Your task to perform on an android device: turn on priority inbox in the gmail app Image 0: 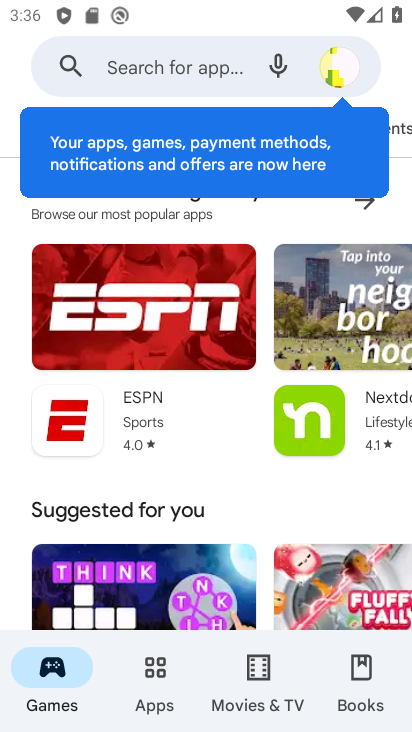
Step 0: press home button
Your task to perform on an android device: turn on priority inbox in the gmail app Image 1: 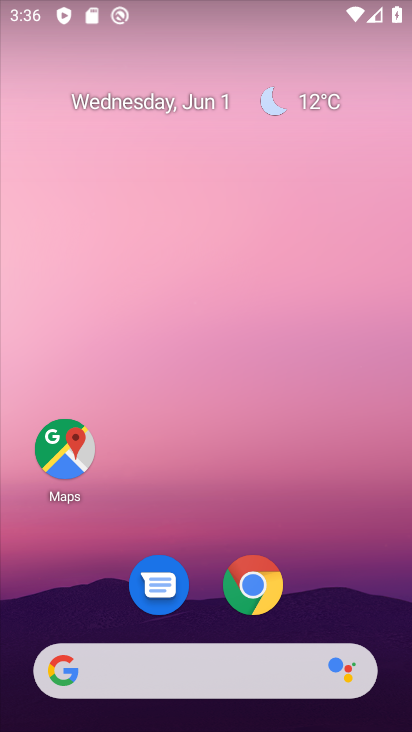
Step 1: drag from (202, 528) to (211, 3)
Your task to perform on an android device: turn on priority inbox in the gmail app Image 2: 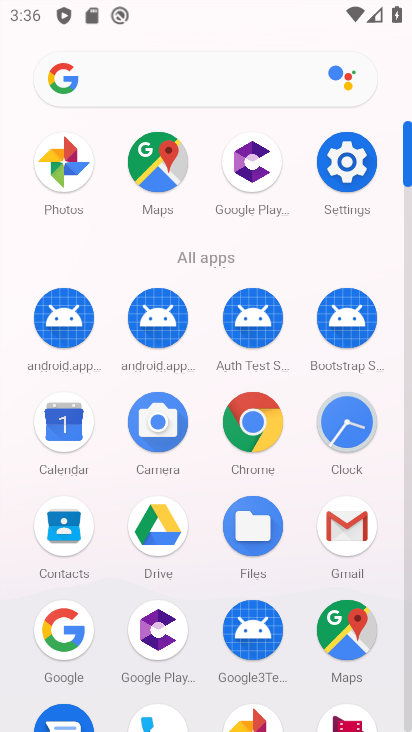
Step 2: click (342, 527)
Your task to perform on an android device: turn on priority inbox in the gmail app Image 3: 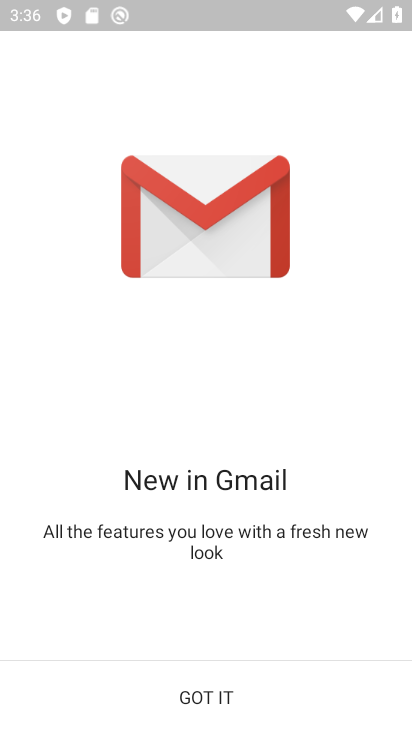
Step 3: click (269, 691)
Your task to perform on an android device: turn on priority inbox in the gmail app Image 4: 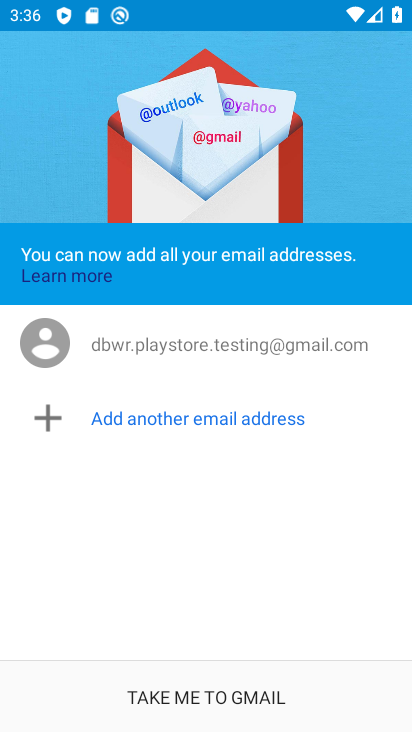
Step 4: click (269, 691)
Your task to perform on an android device: turn on priority inbox in the gmail app Image 5: 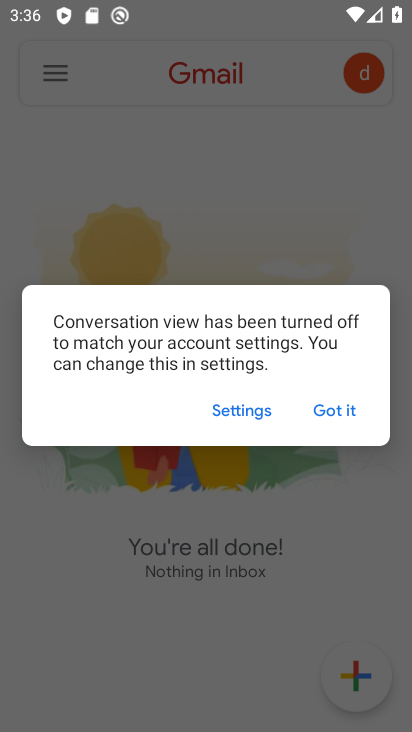
Step 5: click (338, 399)
Your task to perform on an android device: turn on priority inbox in the gmail app Image 6: 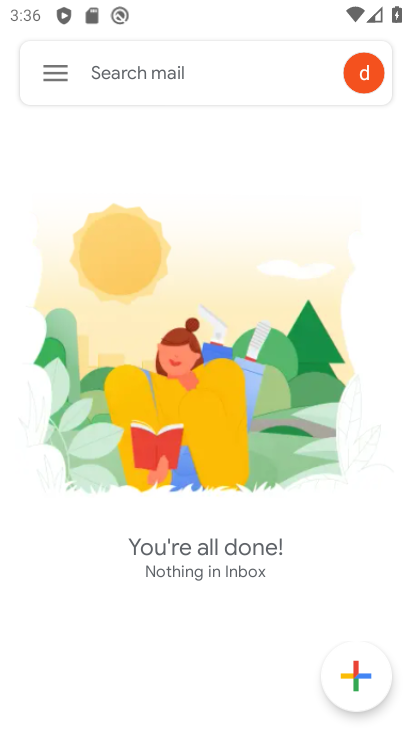
Step 6: click (54, 70)
Your task to perform on an android device: turn on priority inbox in the gmail app Image 7: 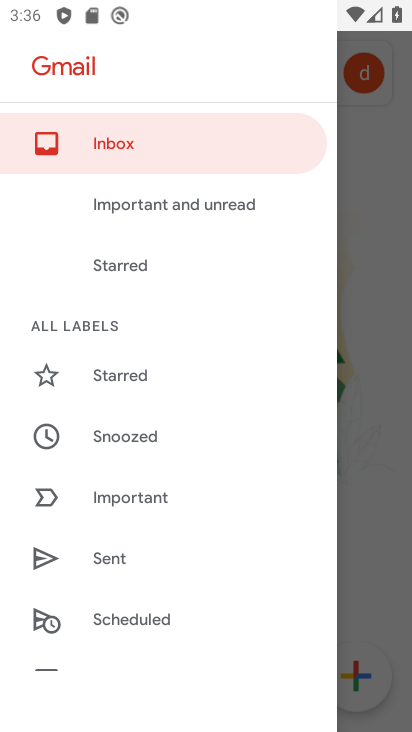
Step 7: drag from (163, 514) to (246, 109)
Your task to perform on an android device: turn on priority inbox in the gmail app Image 8: 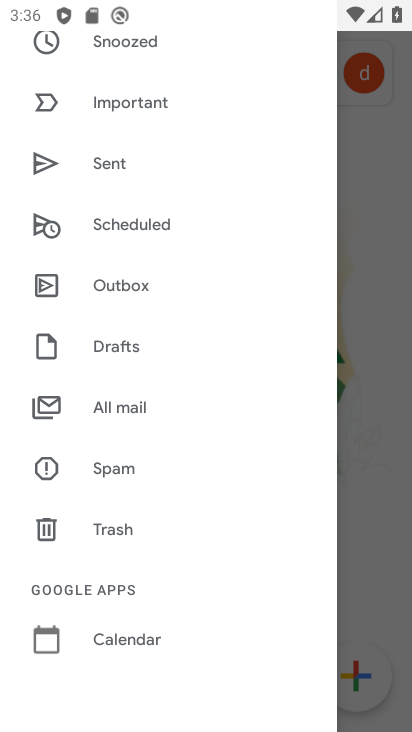
Step 8: drag from (176, 519) to (215, 268)
Your task to perform on an android device: turn on priority inbox in the gmail app Image 9: 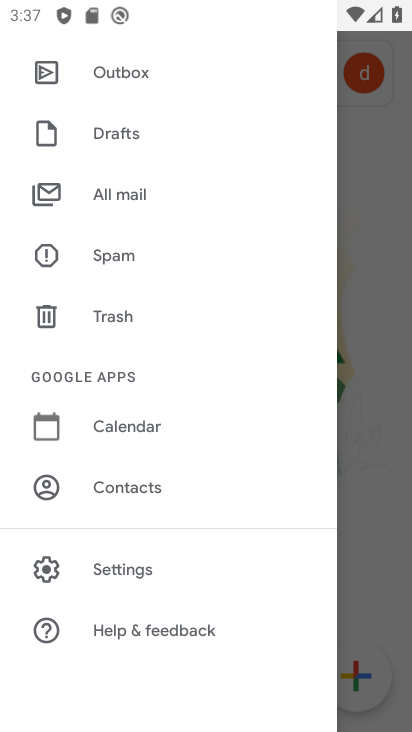
Step 9: click (131, 571)
Your task to perform on an android device: turn on priority inbox in the gmail app Image 10: 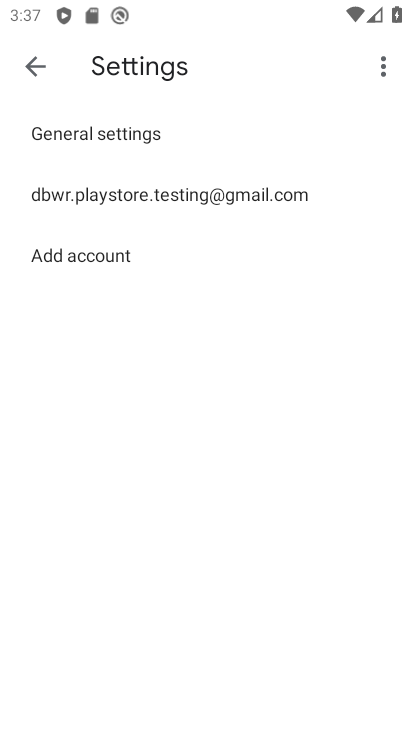
Step 10: click (271, 199)
Your task to perform on an android device: turn on priority inbox in the gmail app Image 11: 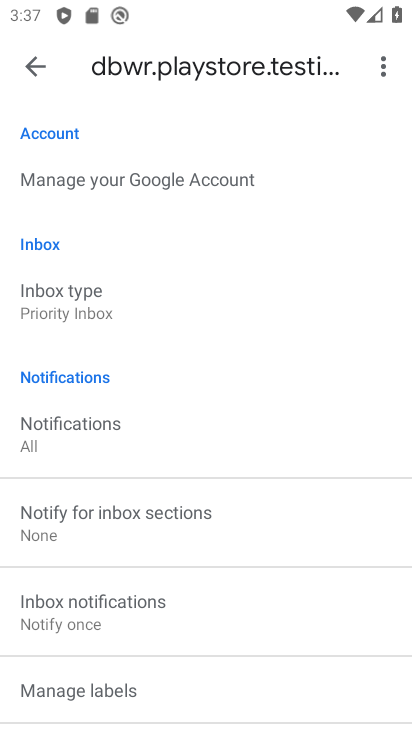
Step 11: task complete